Your task to perform on an android device: Open the map Image 0: 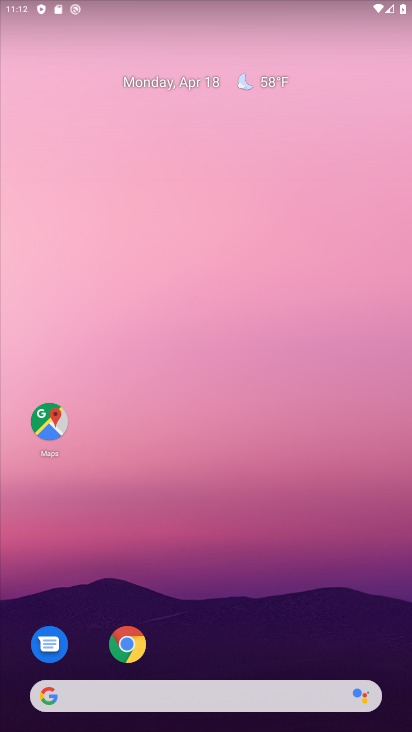
Step 0: click (56, 429)
Your task to perform on an android device: Open the map Image 1: 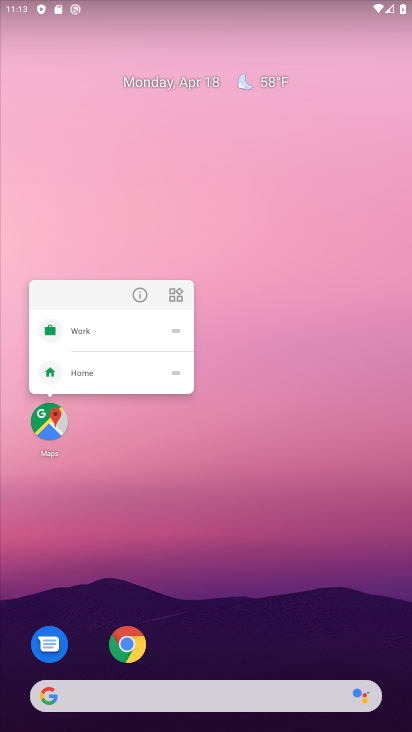
Step 1: click (137, 290)
Your task to perform on an android device: Open the map Image 2: 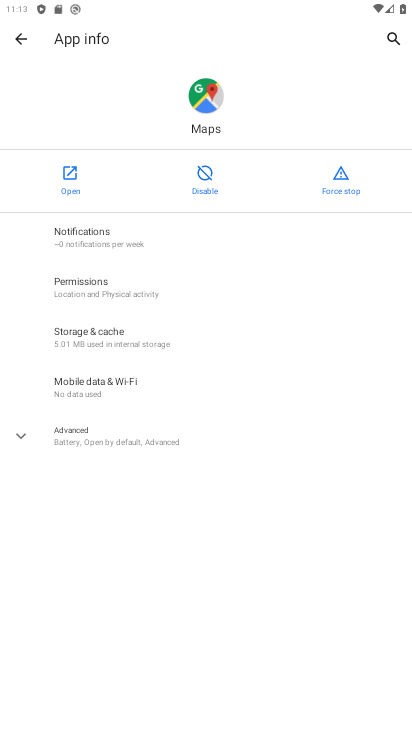
Step 2: click (68, 177)
Your task to perform on an android device: Open the map Image 3: 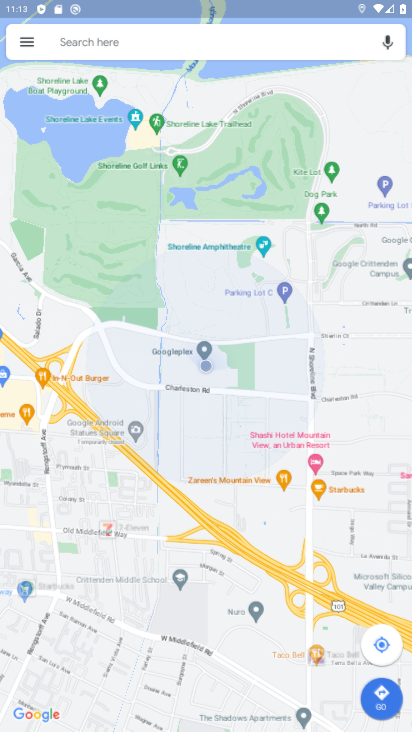
Step 3: task complete